Your task to perform on an android device: Open Google Maps and go to "Timeline" Image 0: 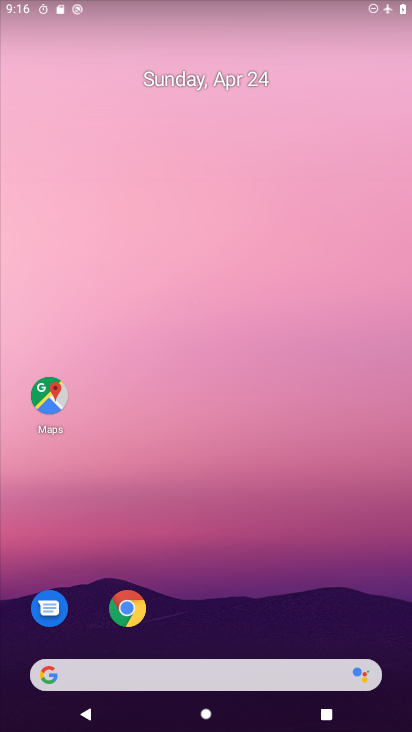
Step 0: click (242, 528)
Your task to perform on an android device: Open Google Maps and go to "Timeline" Image 1: 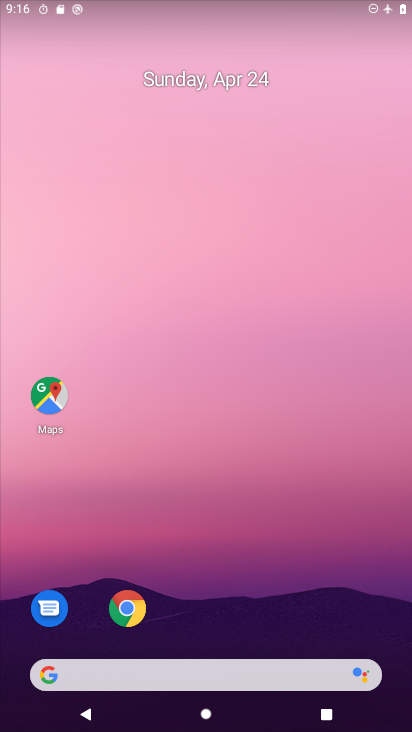
Step 1: click (52, 382)
Your task to perform on an android device: Open Google Maps and go to "Timeline" Image 2: 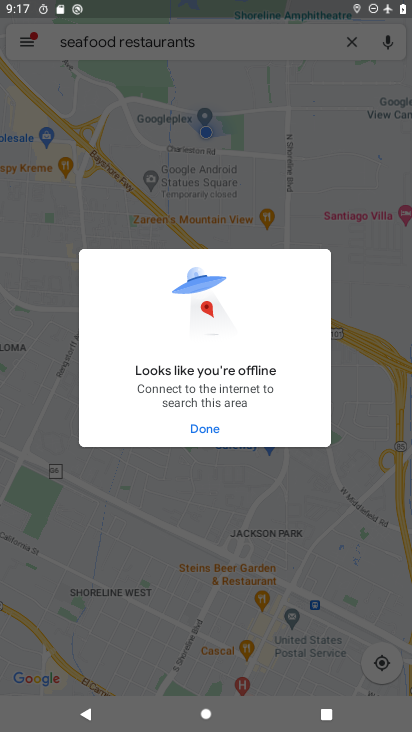
Step 2: click (160, 139)
Your task to perform on an android device: Open Google Maps and go to "Timeline" Image 3: 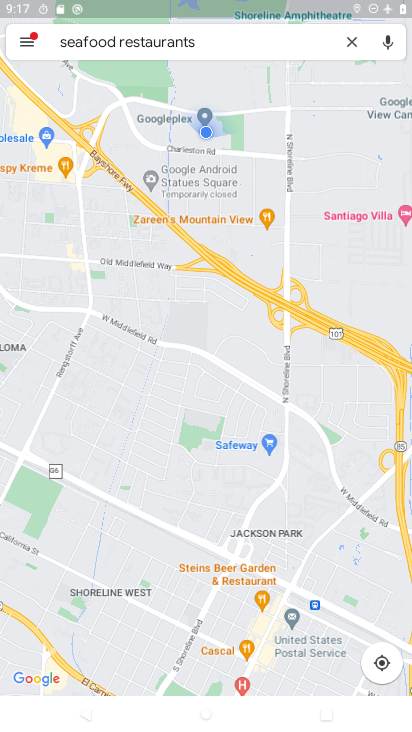
Step 3: click (27, 41)
Your task to perform on an android device: Open Google Maps and go to "Timeline" Image 4: 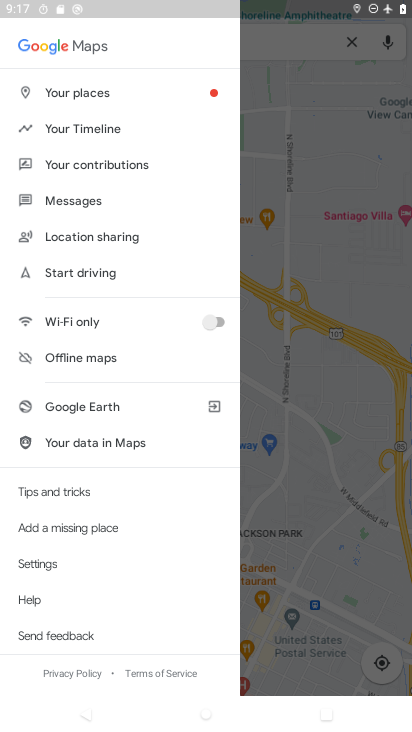
Step 4: click (86, 125)
Your task to perform on an android device: Open Google Maps and go to "Timeline" Image 5: 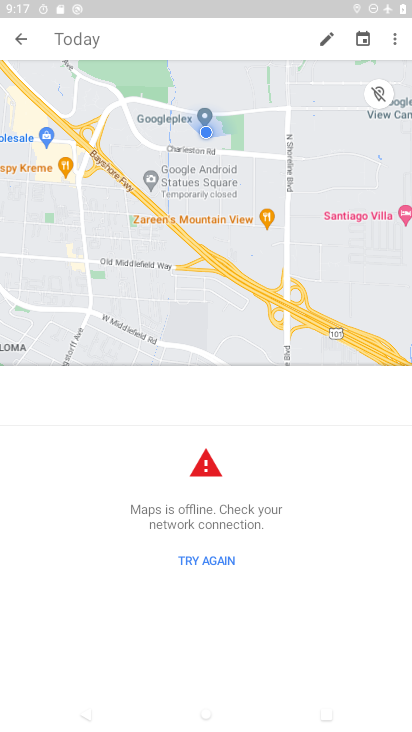
Step 5: task complete